Your task to perform on an android device: set an alarm Image 0: 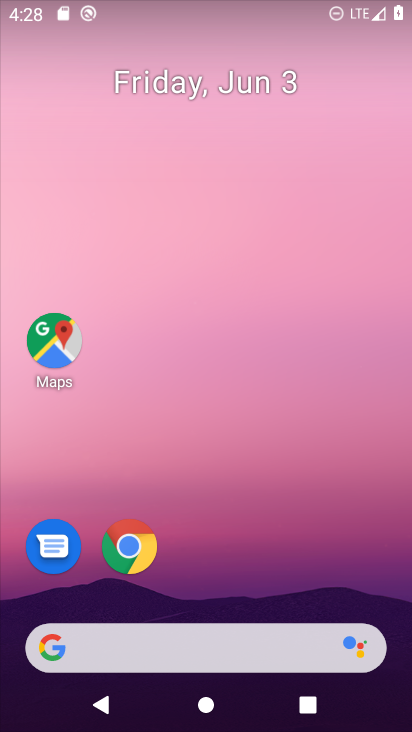
Step 0: drag from (207, 567) to (231, 29)
Your task to perform on an android device: set an alarm Image 1: 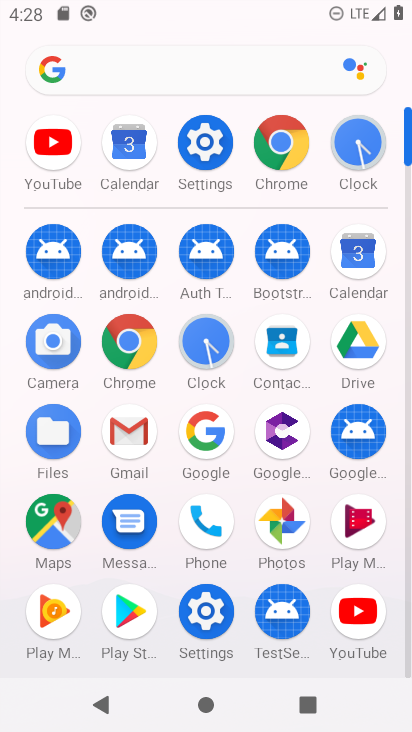
Step 1: click (195, 336)
Your task to perform on an android device: set an alarm Image 2: 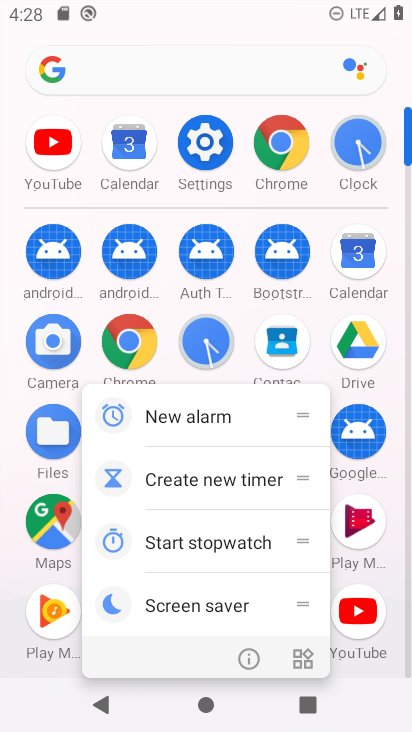
Step 2: click (201, 328)
Your task to perform on an android device: set an alarm Image 3: 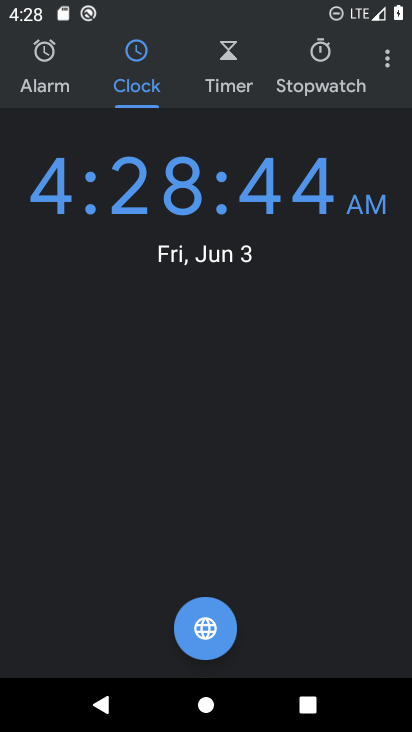
Step 3: click (47, 79)
Your task to perform on an android device: set an alarm Image 4: 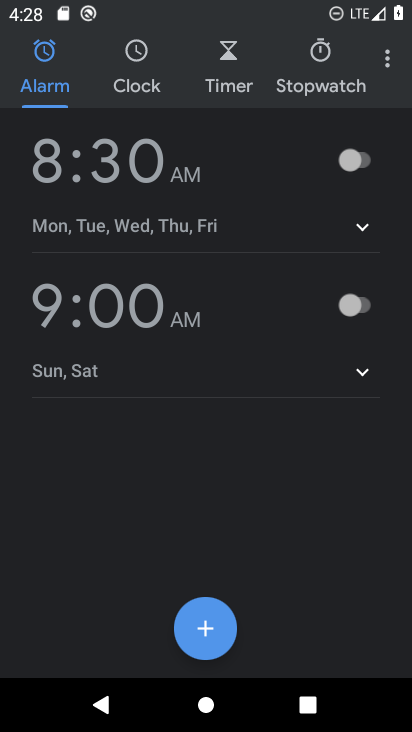
Step 4: click (201, 619)
Your task to perform on an android device: set an alarm Image 5: 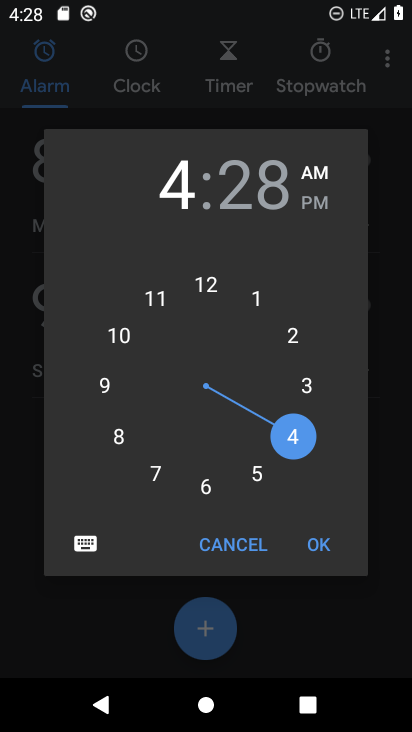
Step 5: click (209, 486)
Your task to perform on an android device: set an alarm Image 6: 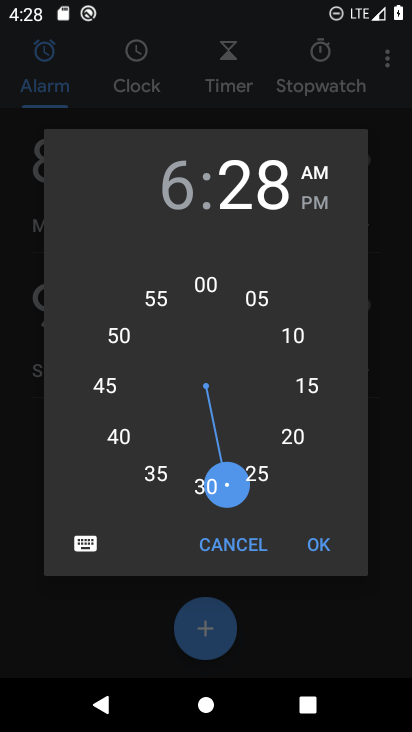
Step 6: click (198, 286)
Your task to perform on an android device: set an alarm Image 7: 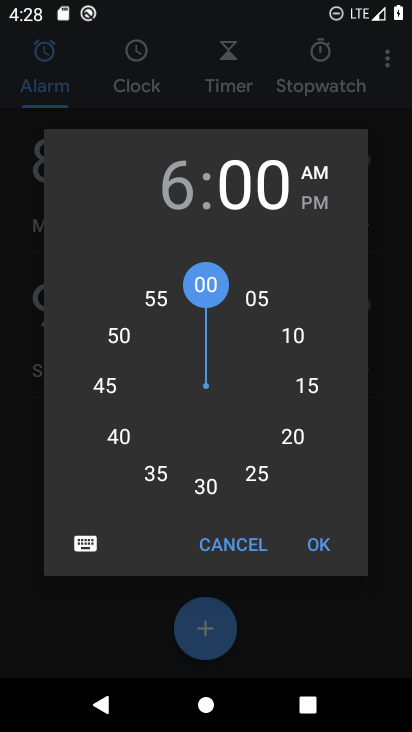
Step 7: click (302, 203)
Your task to perform on an android device: set an alarm Image 8: 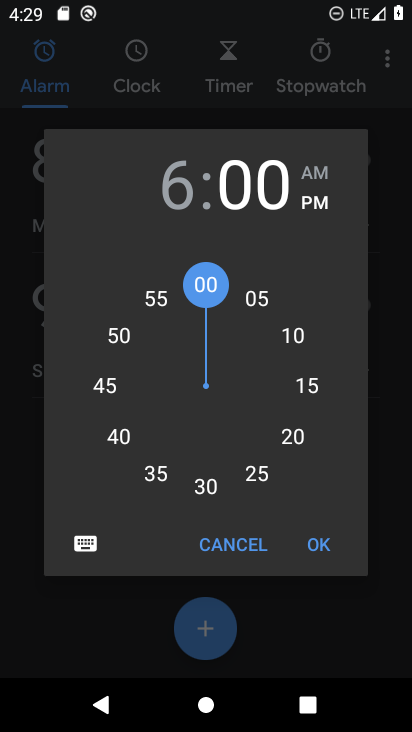
Step 8: click (320, 539)
Your task to perform on an android device: set an alarm Image 9: 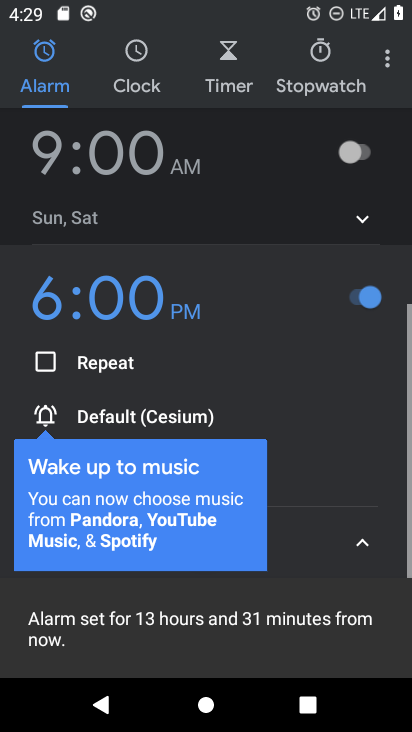
Step 9: task complete